Your task to perform on an android device: delete the emails in spam in the gmail app Image 0: 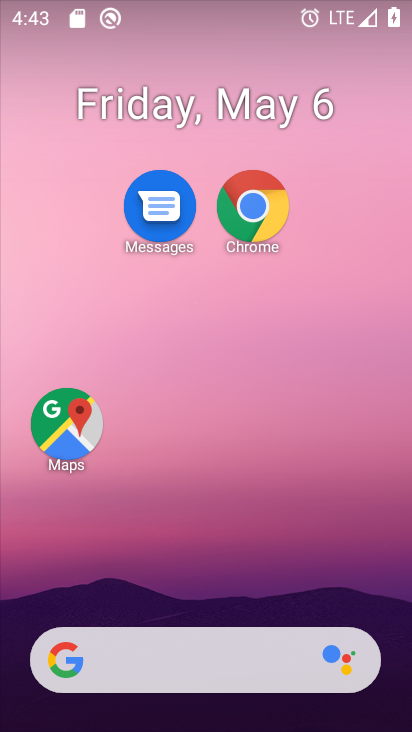
Step 0: drag from (169, 625) to (180, 344)
Your task to perform on an android device: delete the emails in spam in the gmail app Image 1: 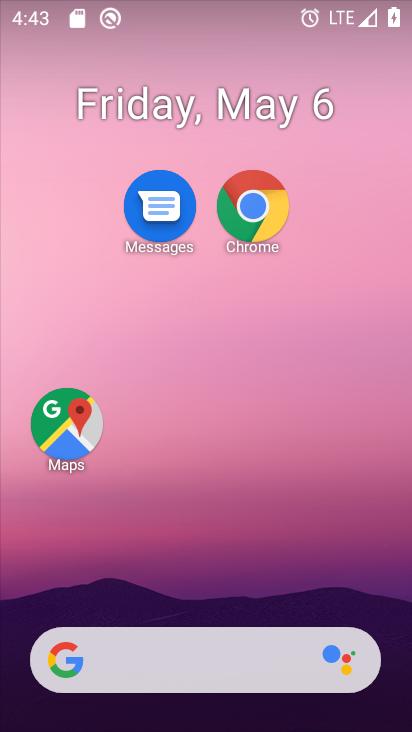
Step 1: drag from (205, 612) to (226, 198)
Your task to perform on an android device: delete the emails in spam in the gmail app Image 2: 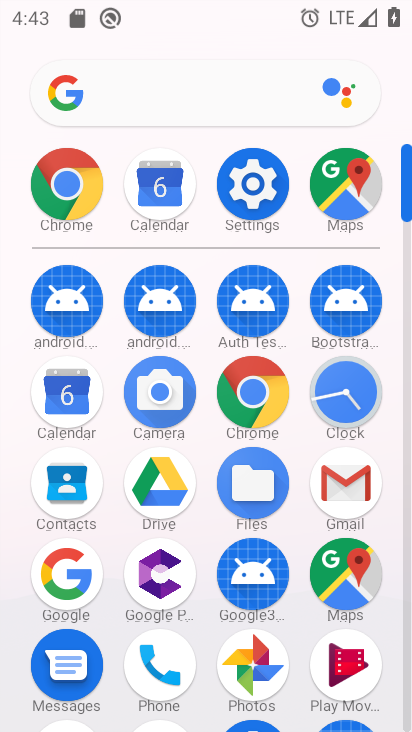
Step 2: click (352, 473)
Your task to perform on an android device: delete the emails in spam in the gmail app Image 3: 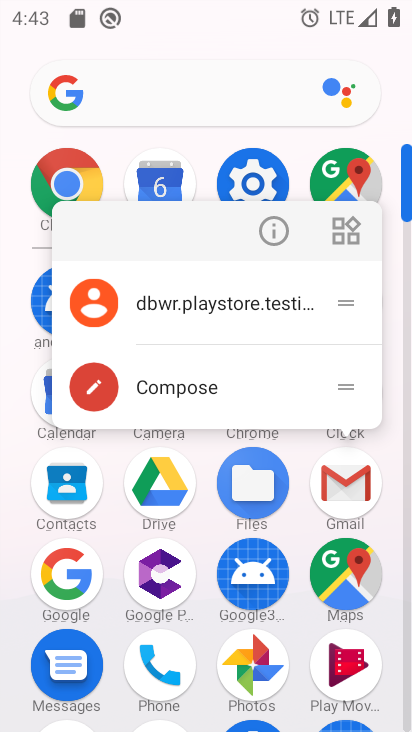
Step 3: click (341, 488)
Your task to perform on an android device: delete the emails in spam in the gmail app Image 4: 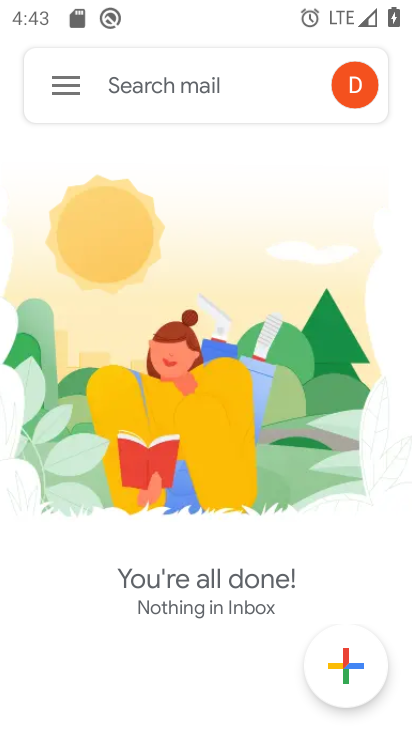
Step 4: click (55, 89)
Your task to perform on an android device: delete the emails in spam in the gmail app Image 5: 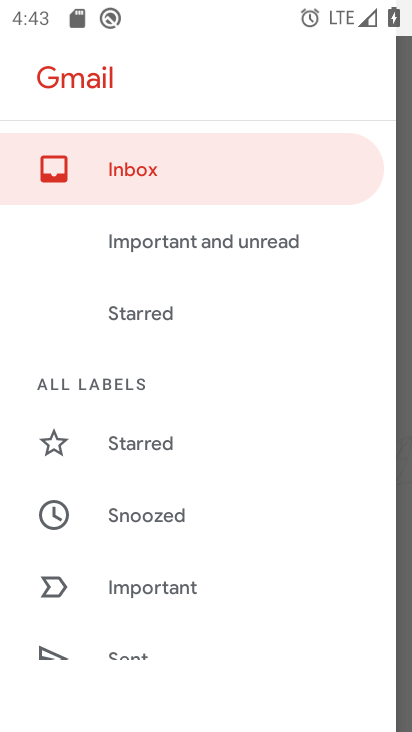
Step 5: drag from (143, 643) to (128, 285)
Your task to perform on an android device: delete the emails in spam in the gmail app Image 6: 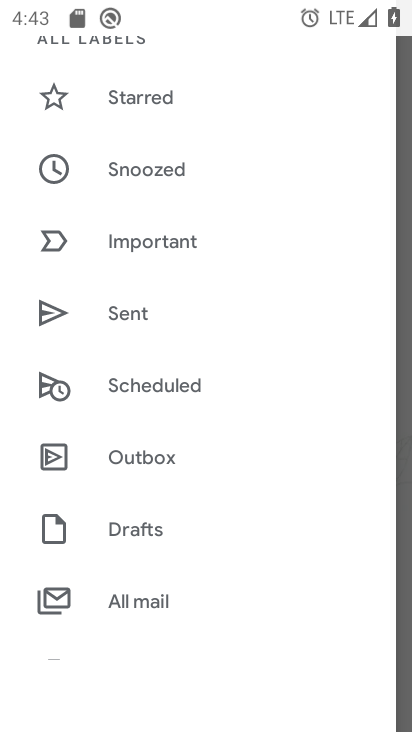
Step 6: drag from (131, 615) to (156, 298)
Your task to perform on an android device: delete the emails in spam in the gmail app Image 7: 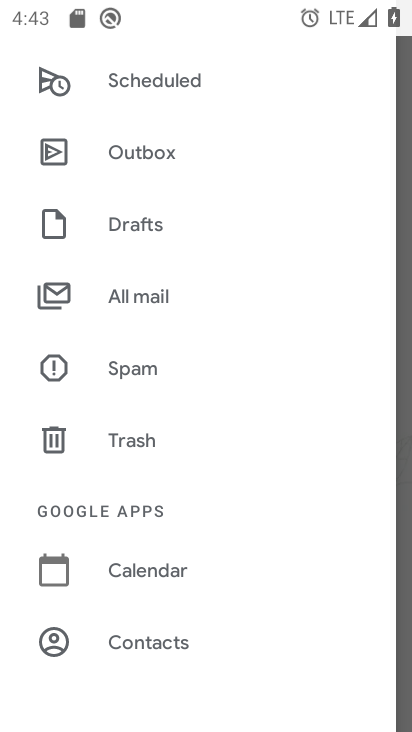
Step 7: click (138, 373)
Your task to perform on an android device: delete the emails in spam in the gmail app Image 8: 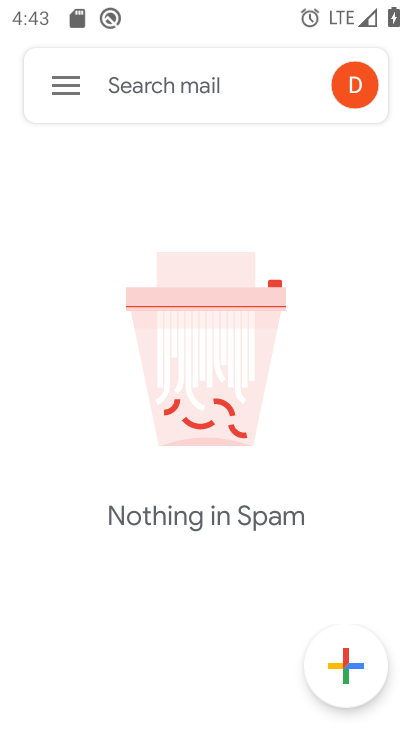
Step 8: task complete